Your task to perform on an android device: turn on showing notifications on the lock screen Image 0: 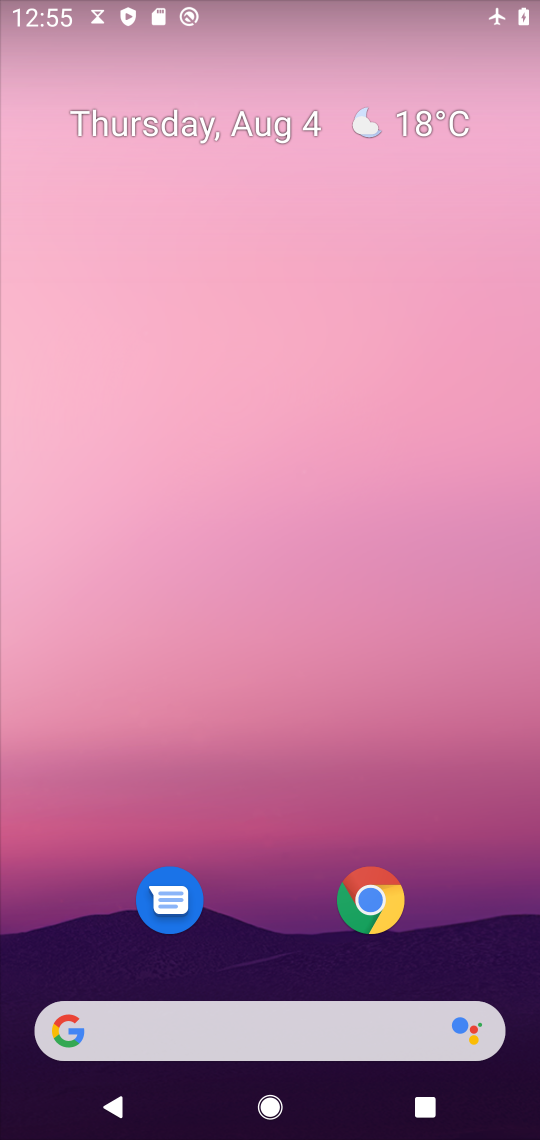
Step 0: press home button
Your task to perform on an android device: turn on showing notifications on the lock screen Image 1: 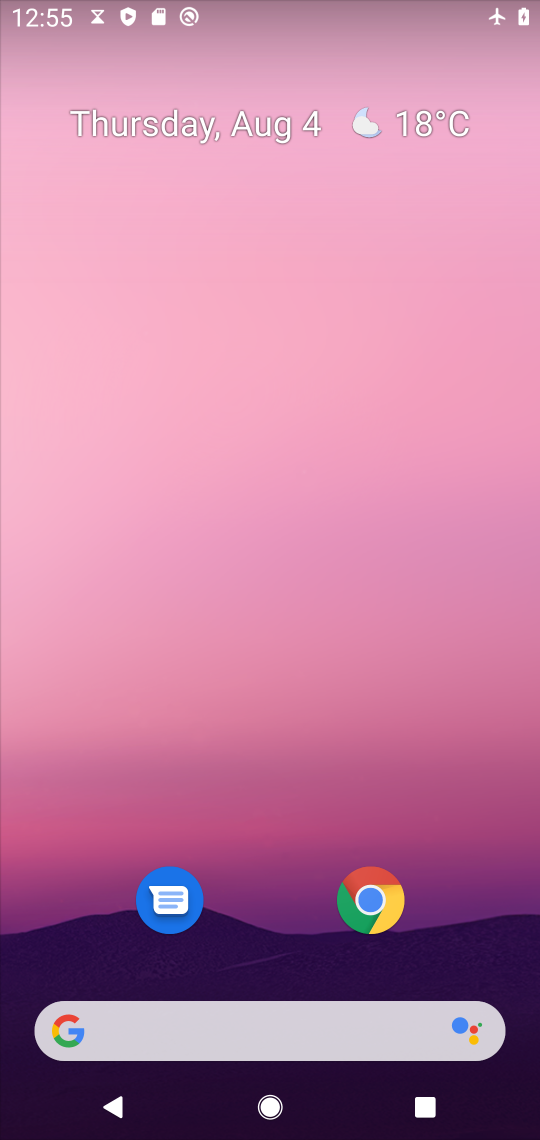
Step 1: drag from (281, 950) to (240, 165)
Your task to perform on an android device: turn on showing notifications on the lock screen Image 2: 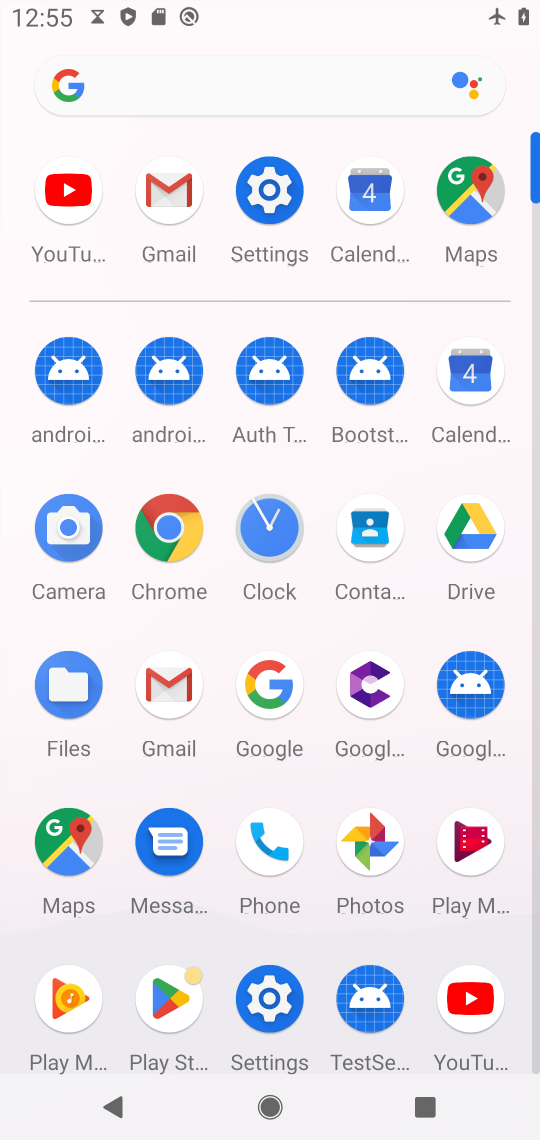
Step 2: click (277, 175)
Your task to perform on an android device: turn on showing notifications on the lock screen Image 3: 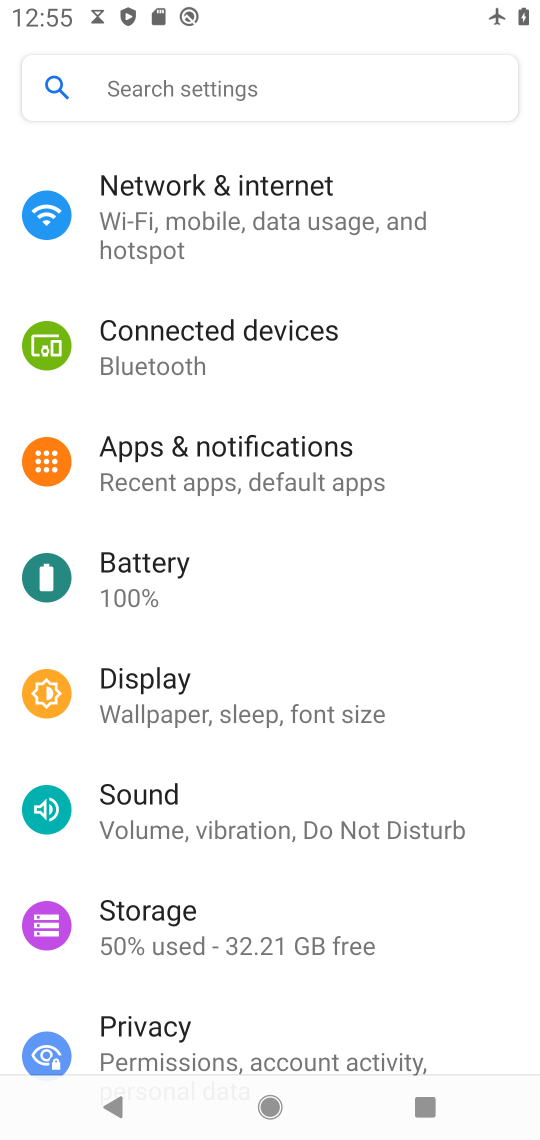
Step 3: click (187, 462)
Your task to perform on an android device: turn on showing notifications on the lock screen Image 4: 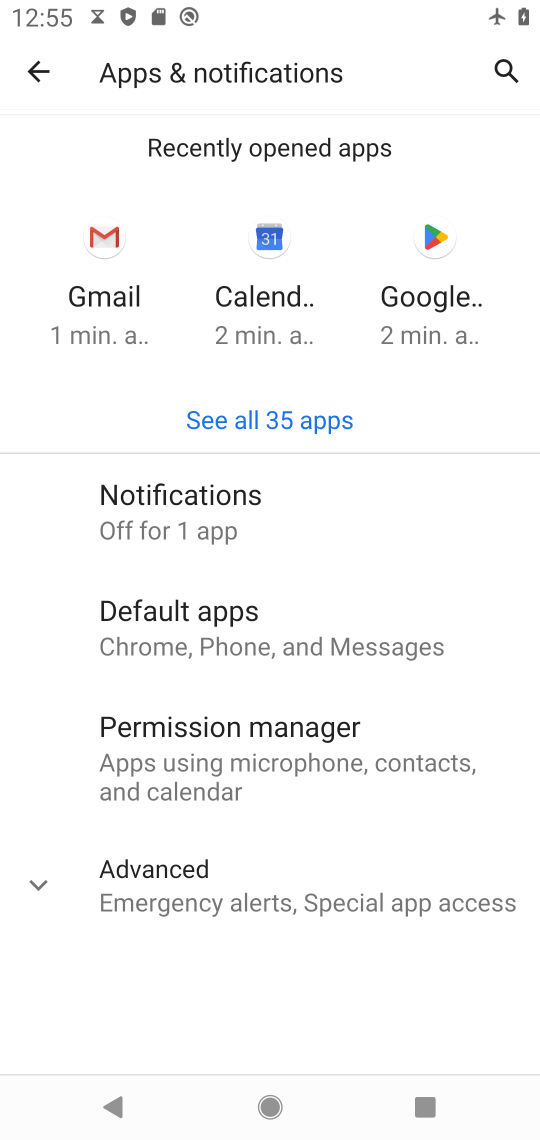
Step 4: click (194, 531)
Your task to perform on an android device: turn on showing notifications on the lock screen Image 5: 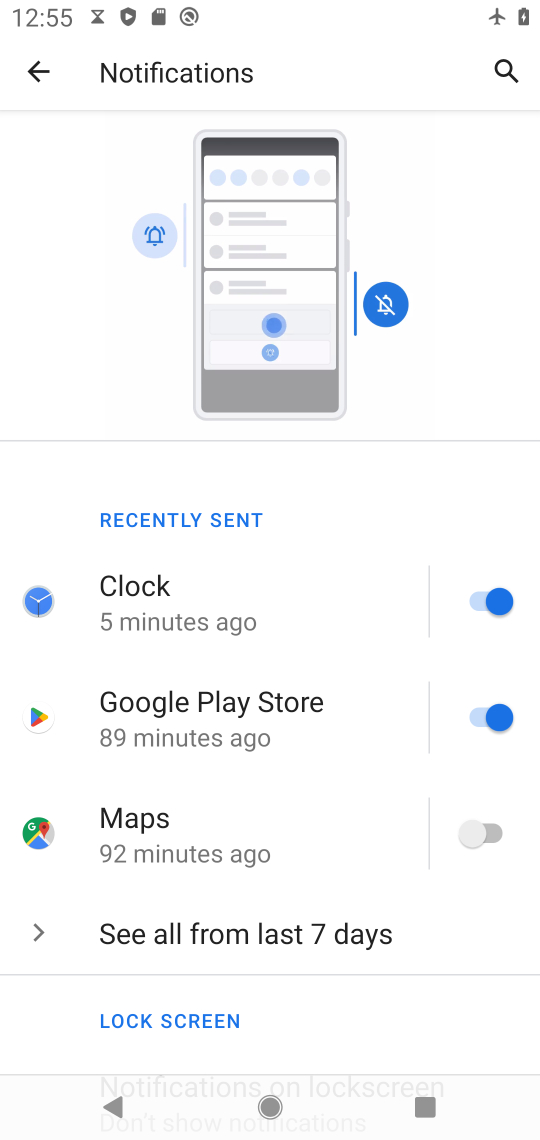
Step 5: drag from (460, 950) to (379, 148)
Your task to perform on an android device: turn on showing notifications on the lock screen Image 6: 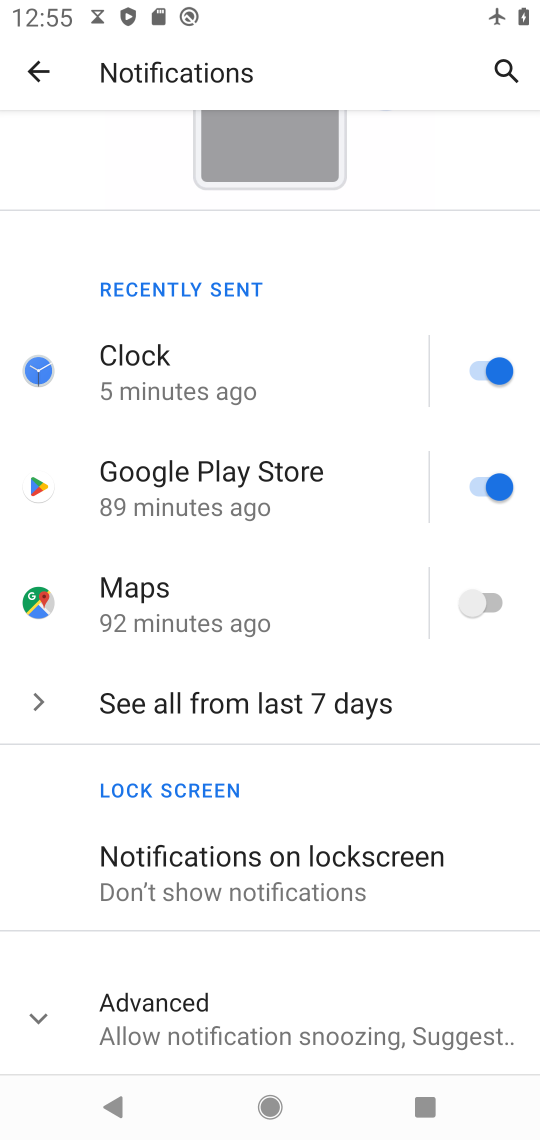
Step 6: click (261, 886)
Your task to perform on an android device: turn on showing notifications on the lock screen Image 7: 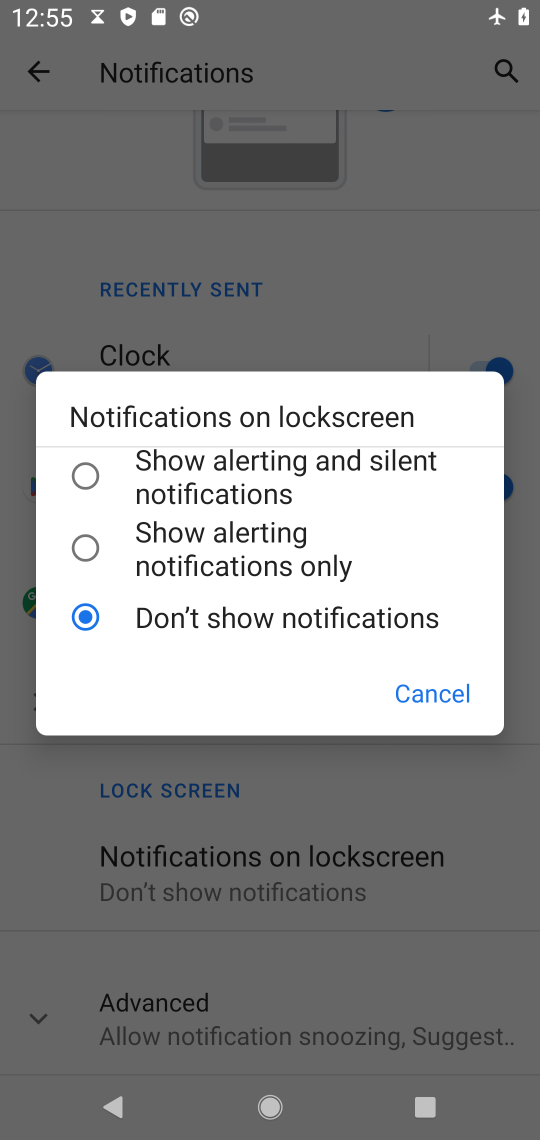
Step 7: click (93, 469)
Your task to perform on an android device: turn on showing notifications on the lock screen Image 8: 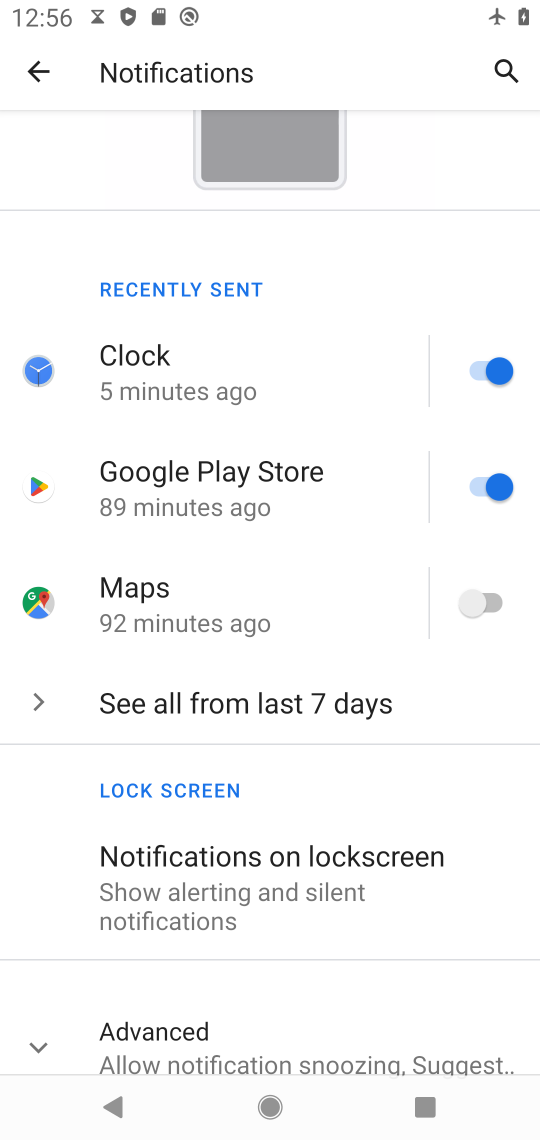
Step 8: task complete